Your task to perform on an android device: Open Google Maps Image 0: 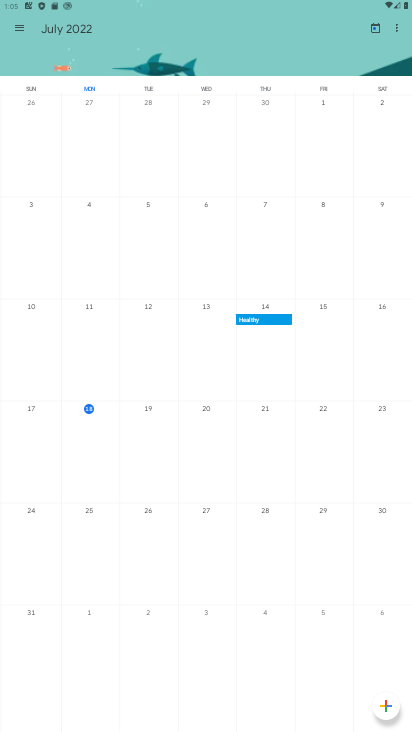
Step 0: press home button
Your task to perform on an android device: Open Google Maps Image 1: 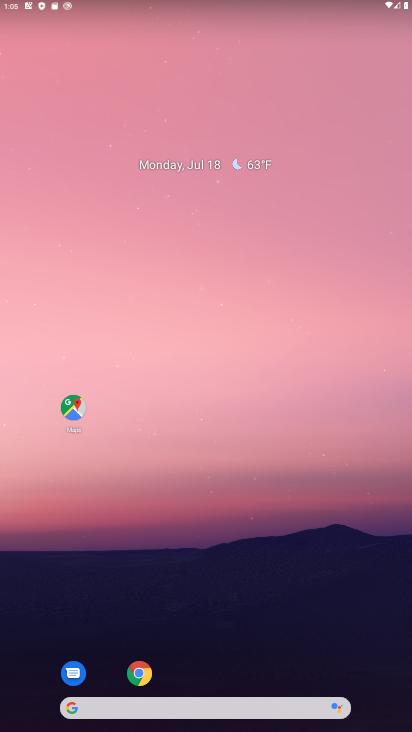
Step 1: drag from (245, 647) to (240, 247)
Your task to perform on an android device: Open Google Maps Image 2: 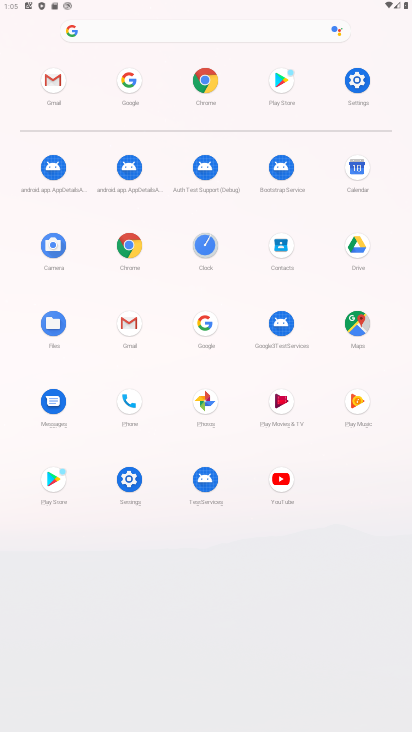
Step 2: click (366, 323)
Your task to perform on an android device: Open Google Maps Image 3: 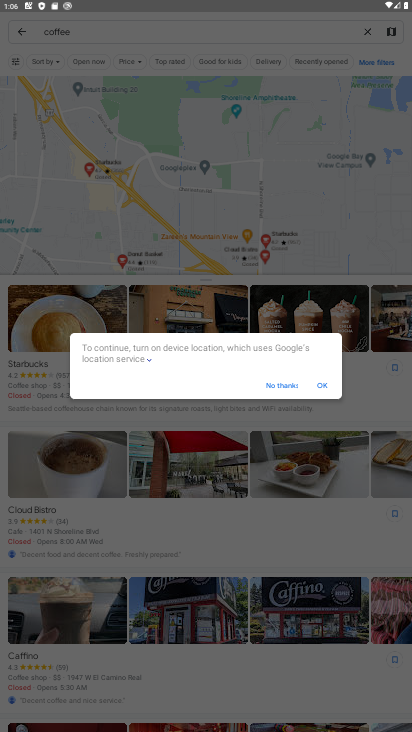
Step 3: click (286, 386)
Your task to perform on an android device: Open Google Maps Image 4: 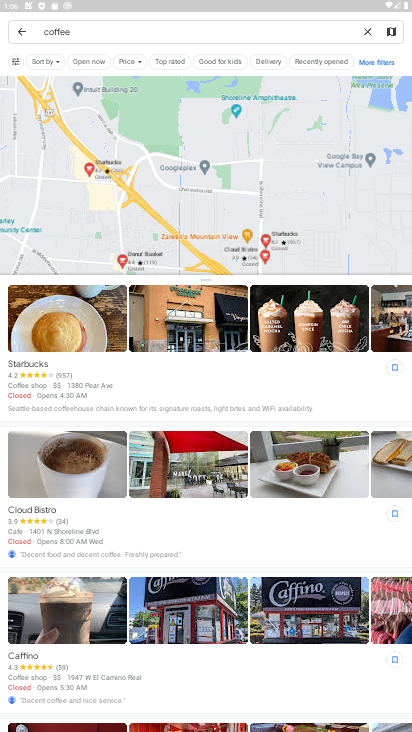
Step 4: click (372, 26)
Your task to perform on an android device: Open Google Maps Image 5: 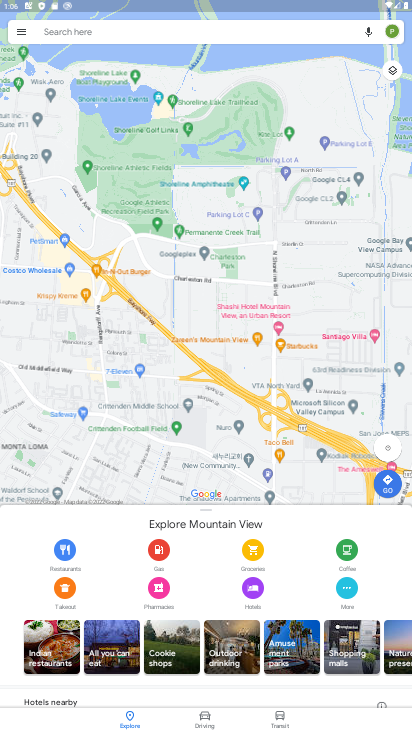
Step 5: task complete